Your task to perform on an android device: show emergency info Image 0: 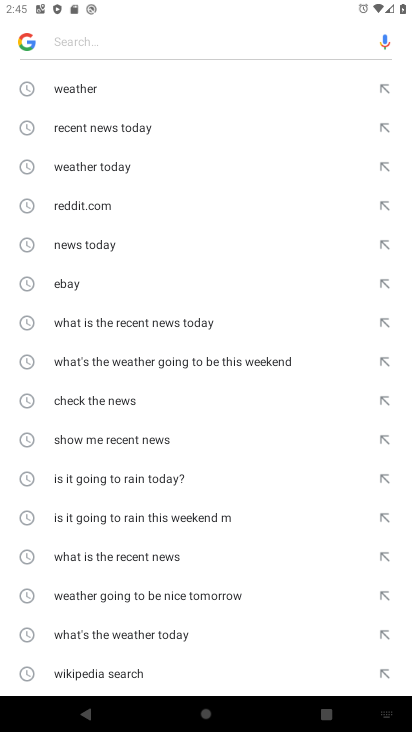
Step 0: press home button
Your task to perform on an android device: show emergency info Image 1: 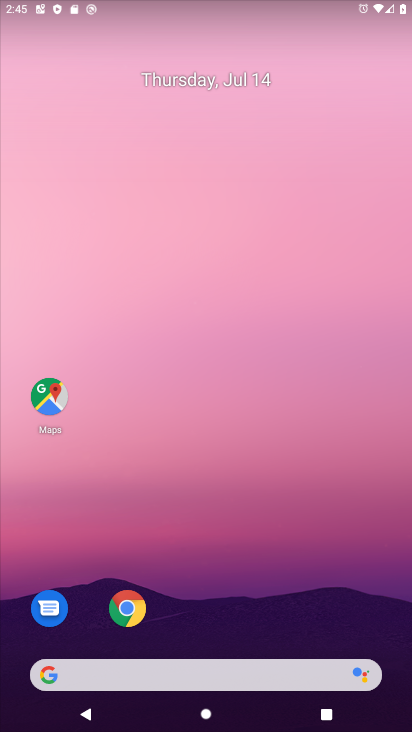
Step 1: drag from (239, 712) to (289, 164)
Your task to perform on an android device: show emergency info Image 2: 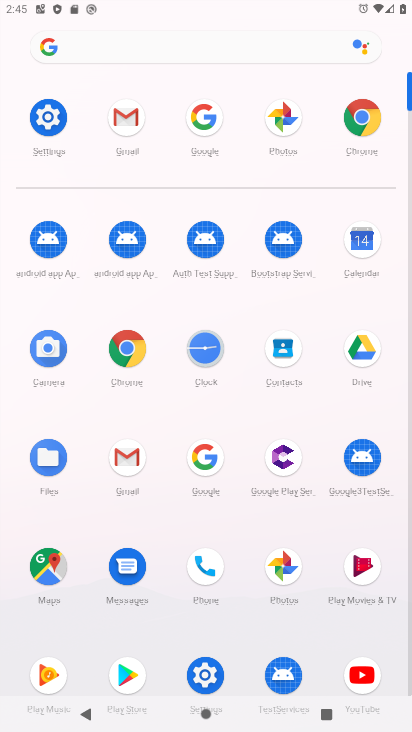
Step 2: click (47, 115)
Your task to perform on an android device: show emergency info Image 3: 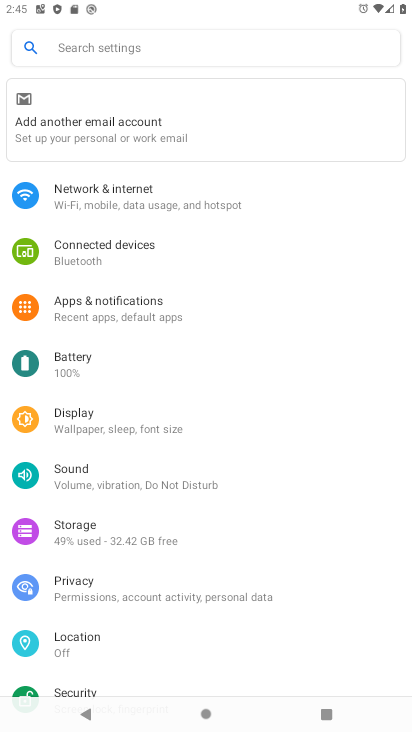
Step 3: drag from (115, 680) to (130, 306)
Your task to perform on an android device: show emergency info Image 4: 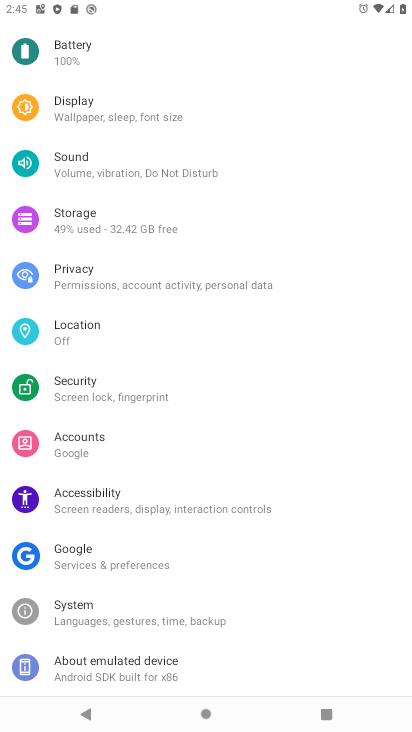
Step 4: drag from (145, 636) to (160, 306)
Your task to perform on an android device: show emergency info Image 5: 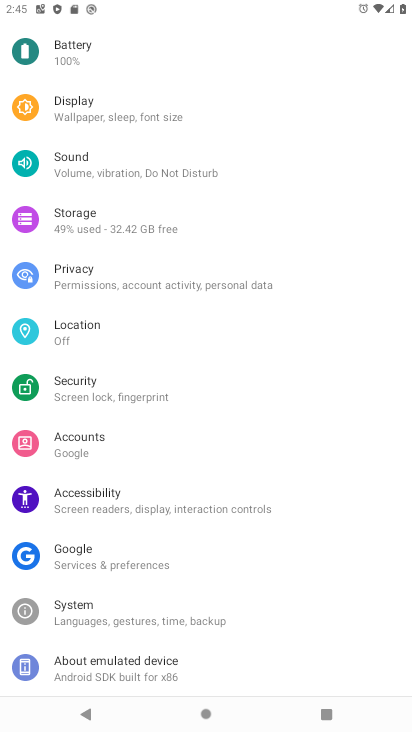
Step 5: click (118, 660)
Your task to perform on an android device: show emergency info Image 6: 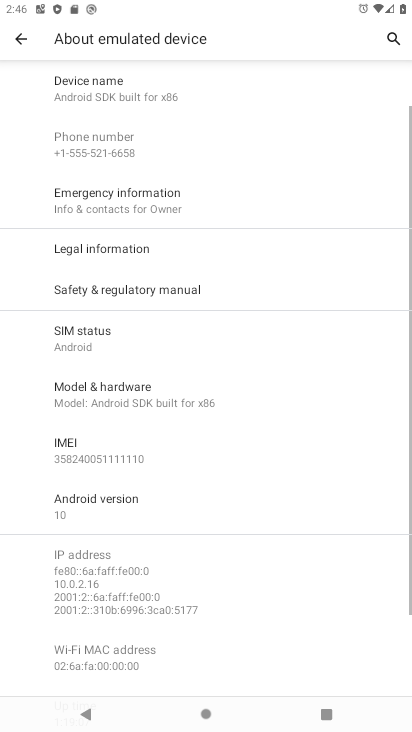
Step 6: click (112, 204)
Your task to perform on an android device: show emergency info Image 7: 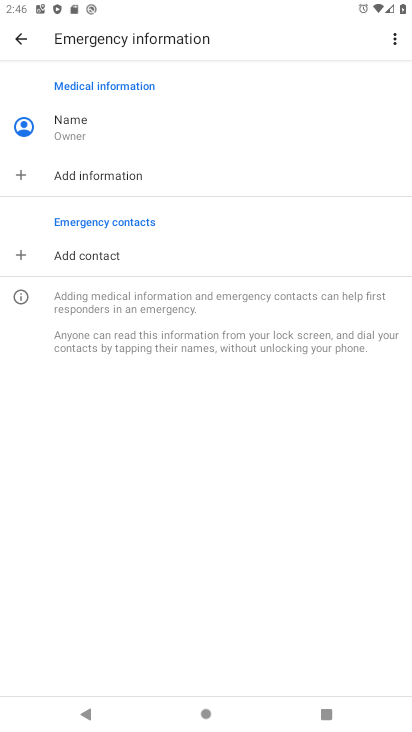
Step 7: task complete